Your task to perform on an android device: Go to display settings Image 0: 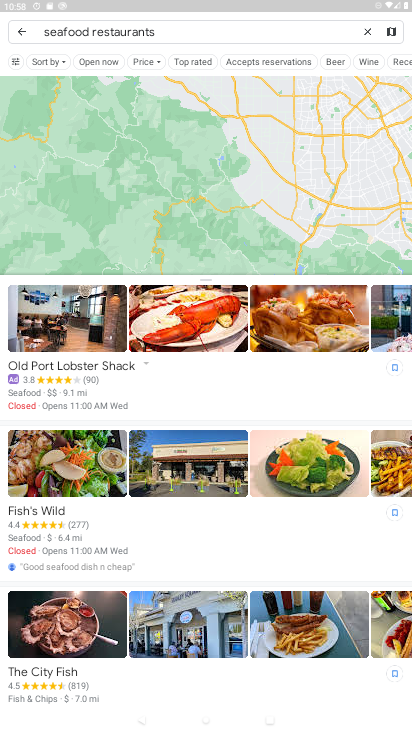
Step 0: drag from (163, 556) to (193, 160)
Your task to perform on an android device: Go to display settings Image 1: 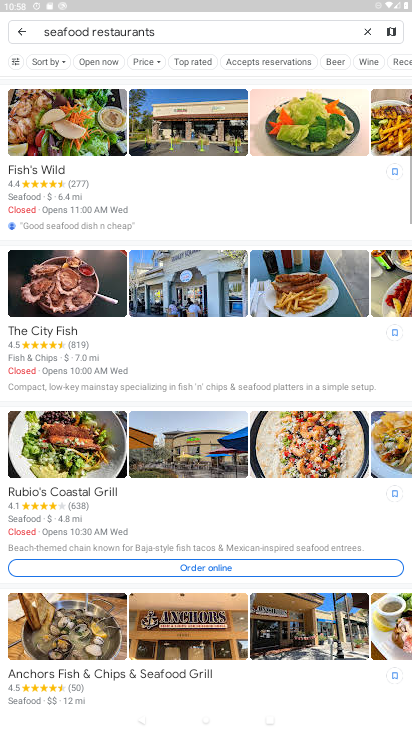
Step 1: press home button
Your task to perform on an android device: Go to display settings Image 2: 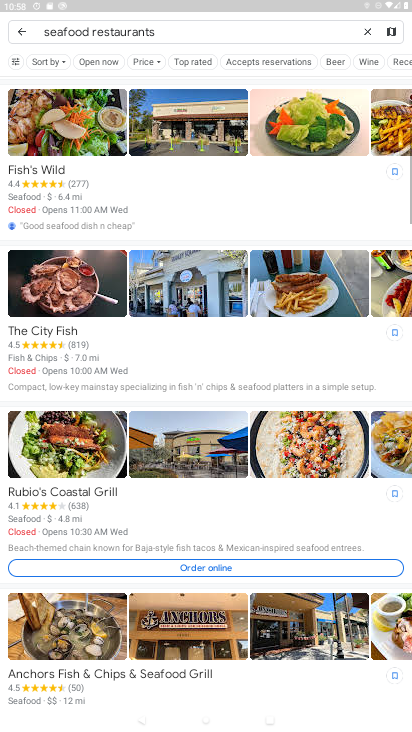
Step 2: drag from (164, 599) to (221, 163)
Your task to perform on an android device: Go to display settings Image 3: 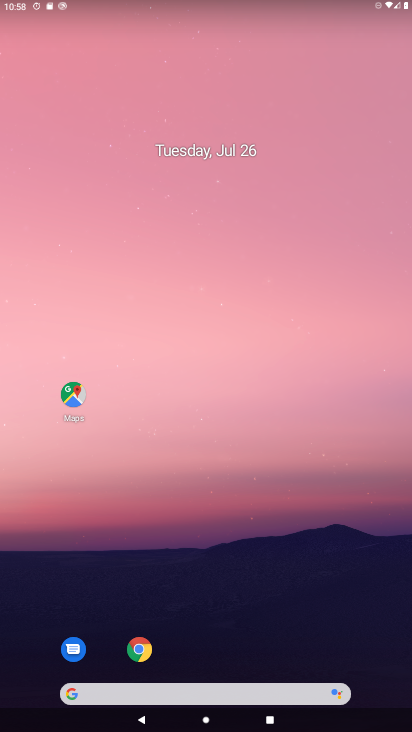
Step 3: drag from (187, 645) to (312, 51)
Your task to perform on an android device: Go to display settings Image 4: 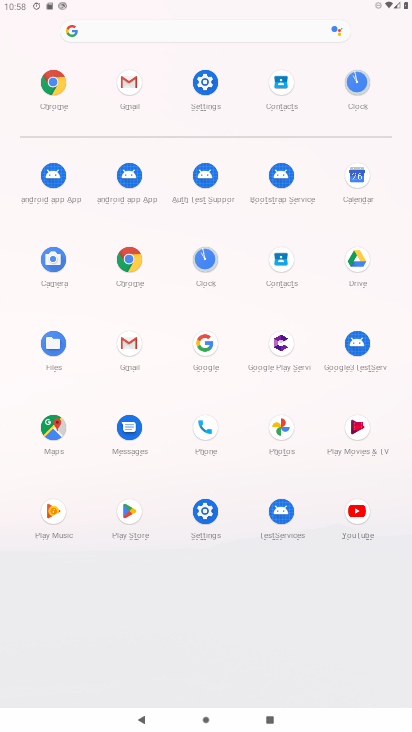
Step 4: click (212, 84)
Your task to perform on an android device: Go to display settings Image 5: 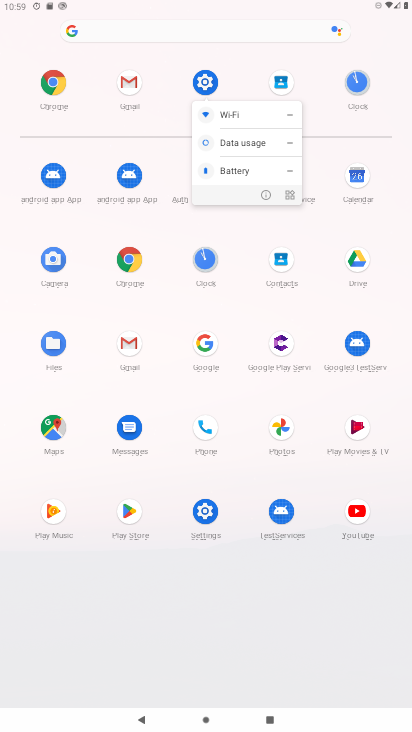
Step 5: click (266, 192)
Your task to perform on an android device: Go to display settings Image 6: 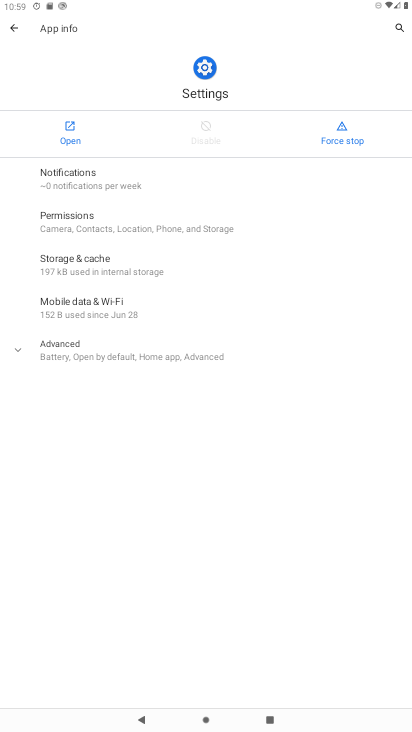
Step 6: click (57, 123)
Your task to perform on an android device: Go to display settings Image 7: 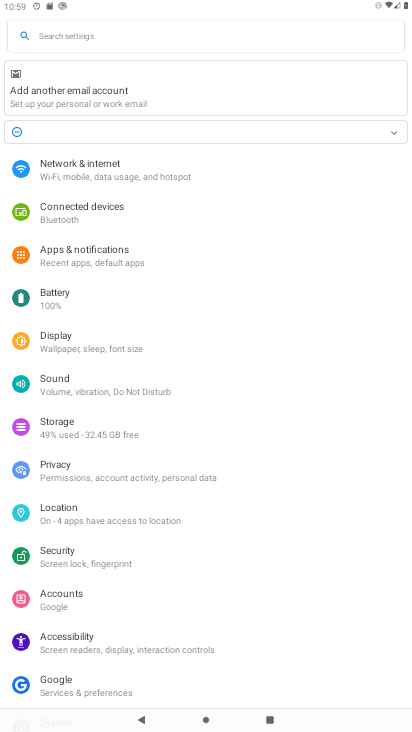
Step 7: click (60, 342)
Your task to perform on an android device: Go to display settings Image 8: 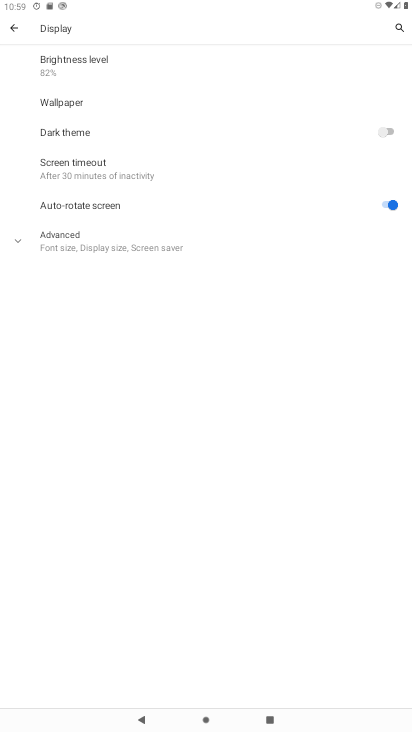
Step 8: task complete